Your task to perform on an android device: find photos in the google photos app Image 0: 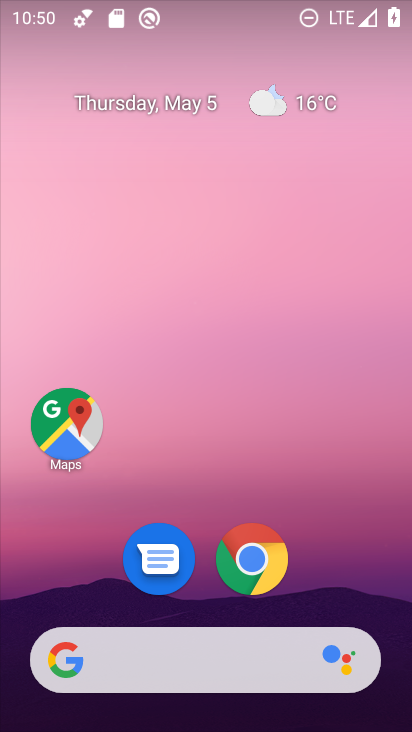
Step 0: drag from (390, 639) to (325, 96)
Your task to perform on an android device: find photos in the google photos app Image 1: 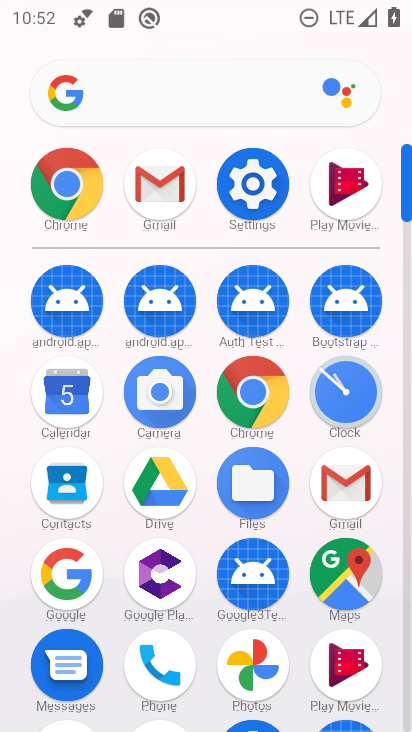
Step 1: click (266, 658)
Your task to perform on an android device: find photos in the google photos app Image 2: 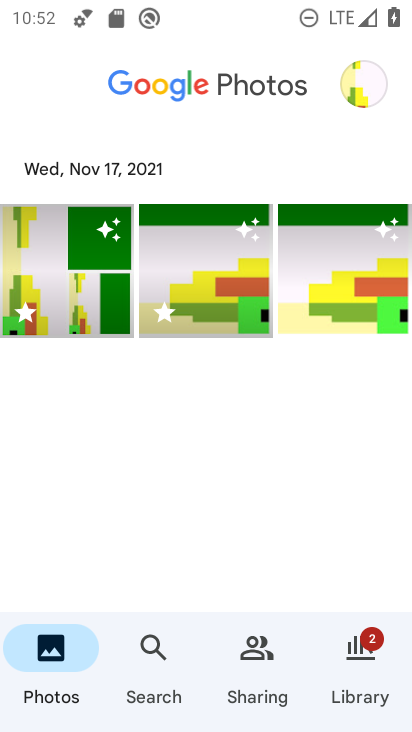
Step 2: task complete